Your task to perform on an android device: change alarm snooze length Image 0: 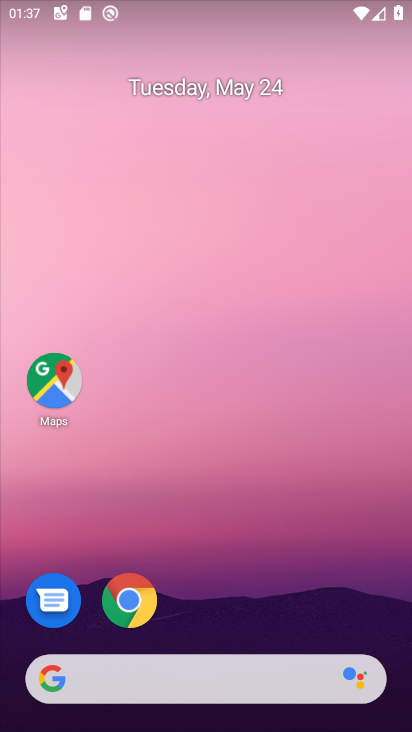
Step 0: drag from (253, 520) to (268, 80)
Your task to perform on an android device: change alarm snooze length Image 1: 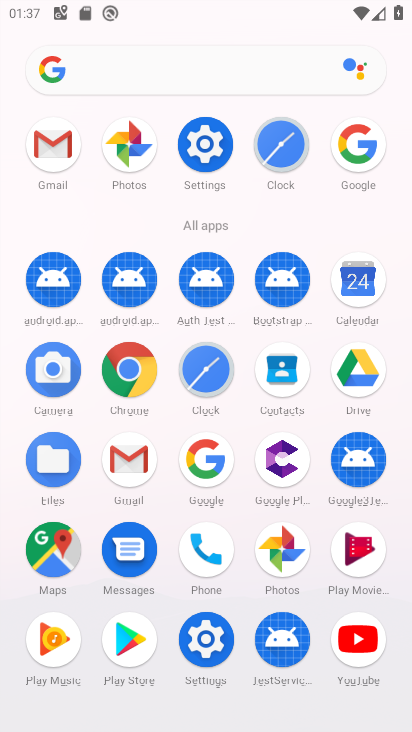
Step 1: click (211, 379)
Your task to perform on an android device: change alarm snooze length Image 2: 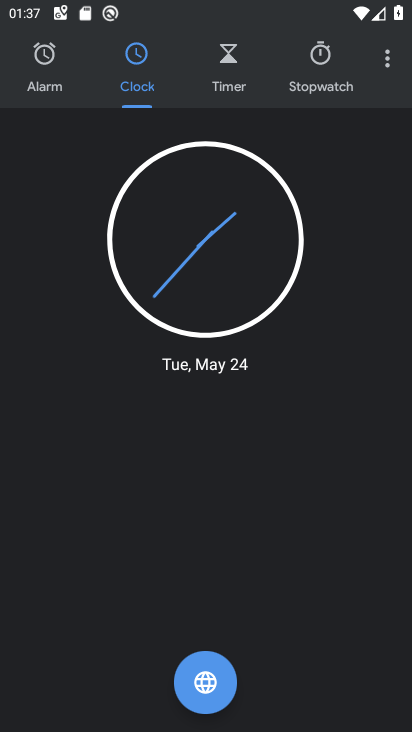
Step 2: click (17, 73)
Your task to perform on an android device: change alarm snooze length Image 3: 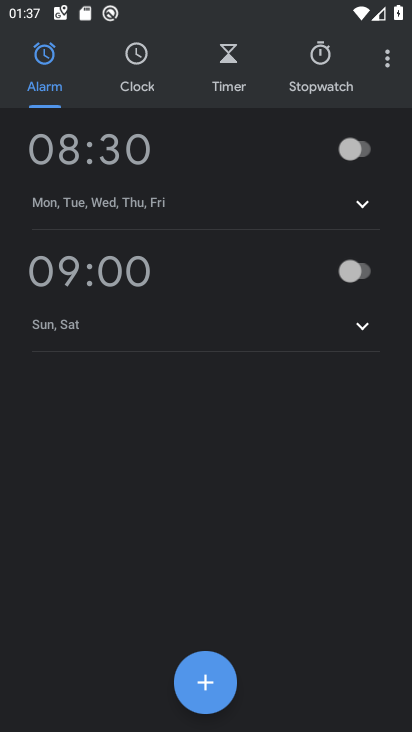
Step 3: click (213, 206)
Your task to perform on an android device: change alarm snooze length Image 4: 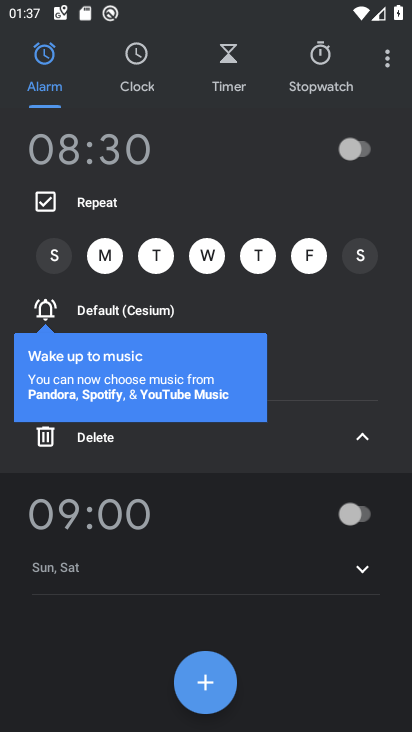
Step 4: click (121, 29)
Your task to perform on an android device: change alarm snooze length Image 5: 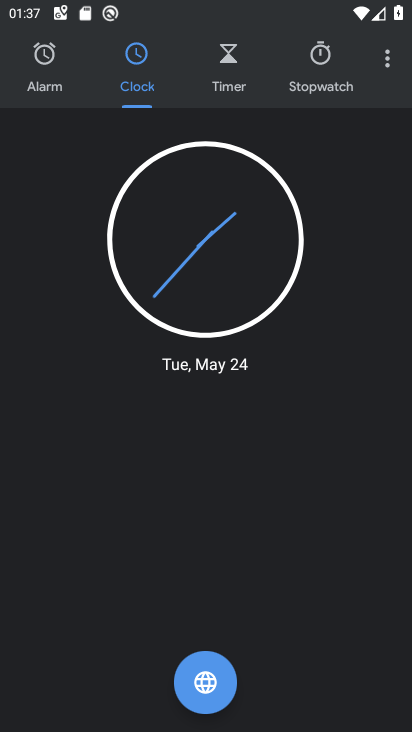
Step 5: click (46, 67)
Your task to perform on an android device: change alarm snooze length Image 6: 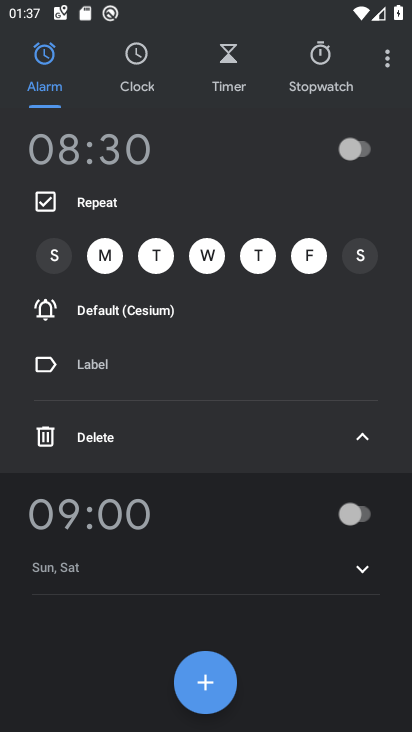
Step 6: click (336, 383)
Your task to perform on an android device: change alarm snooze length Image 7: 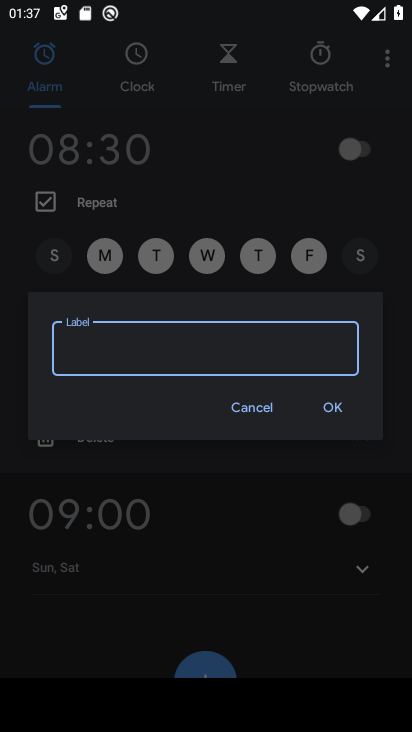
Step 7: click (263, 407)
Your task to perform on an android device: change alarm snooze length Image 8: 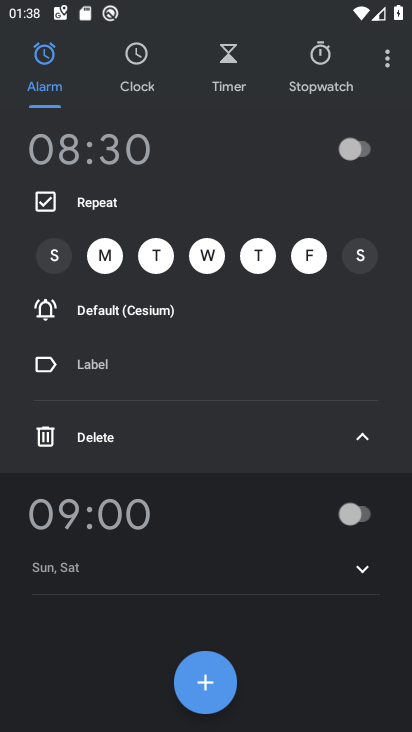
Step 8: task complete